Your task to perform on an android device: Open maps Image 0: 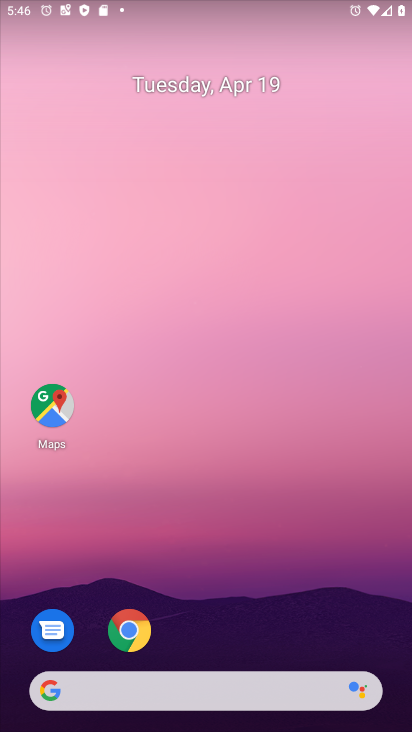
Step 0: drag from (255, 570) to (248, 182)
Your task to perform on an android device: Open maps Image 1: 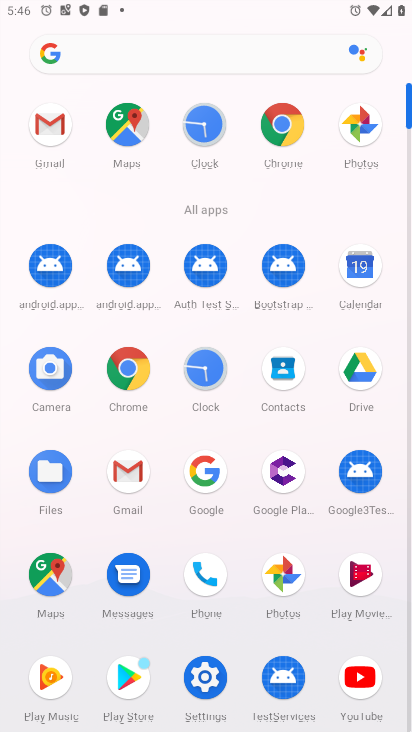
Step 1: click (36, 589)
Your task to perform on an android device: Open maps Image 2: 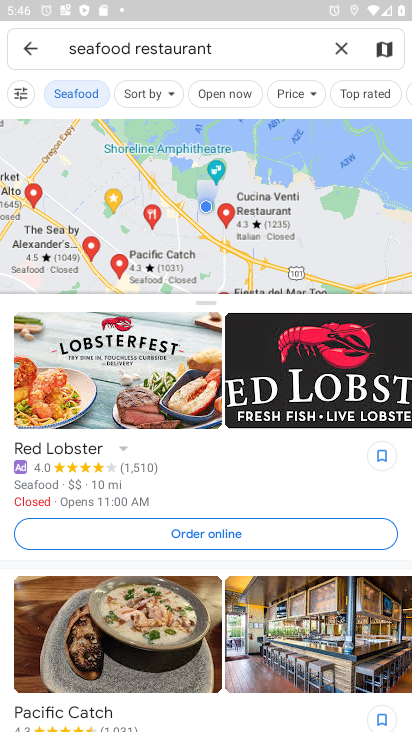
Step 2: task complete